Your task to perform on an android device: Is it going to rain this weekend? Image 0: 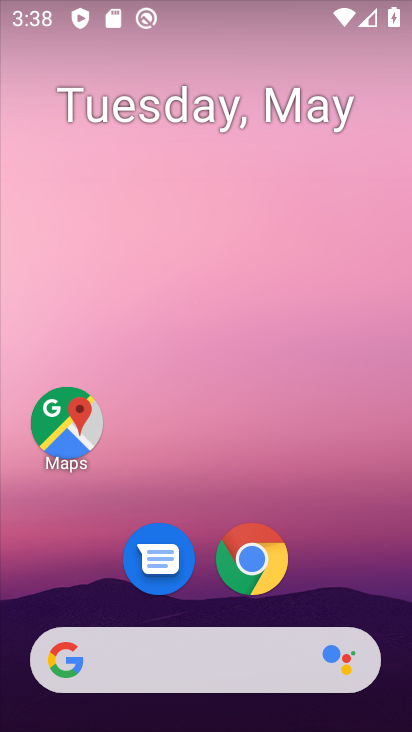
Step 0: click (268, 641)
Your task to perform on an android device: Is it going to rain this weekend? Image 1: 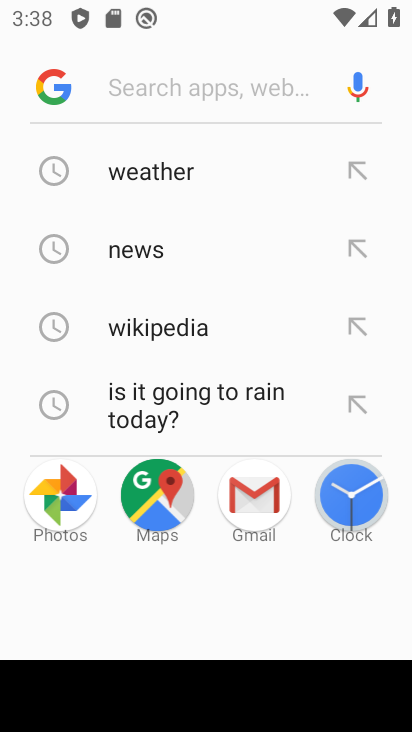
Step 1: type "Is it going to rain this weekend?"
Your task to perform on an android device: Is it going to rain this weekend? Image 2: 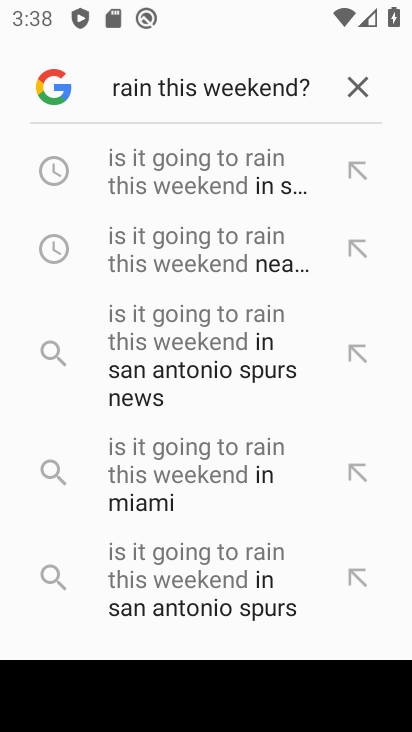
Step 2: click (223, 168)
Your task to perform on an android device: Is it going to rain this weekend? Image 3: 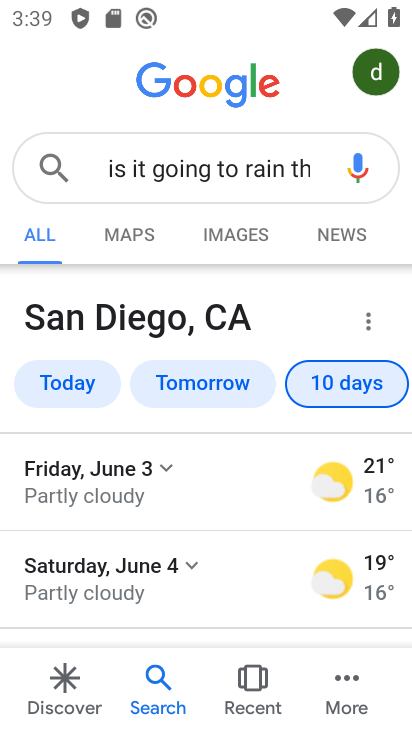
Step 3: task complete